Your task to perform on an android device: star an email in the gmail app Image 0: 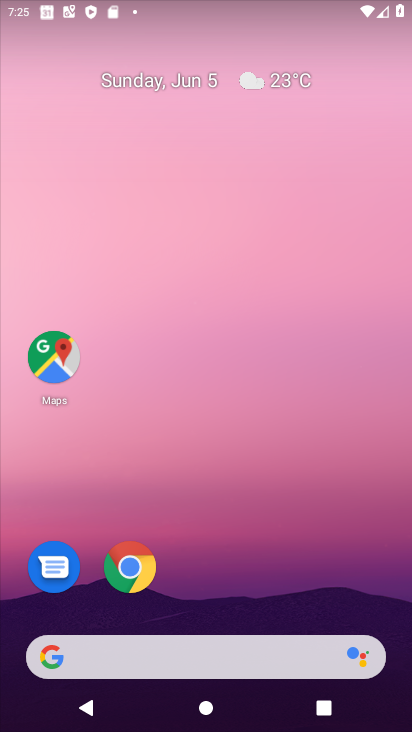
Step 0: drag from (389, 630) to (352, 383)
Your task to perform on an android device: star an email in the gmail app Image 1: 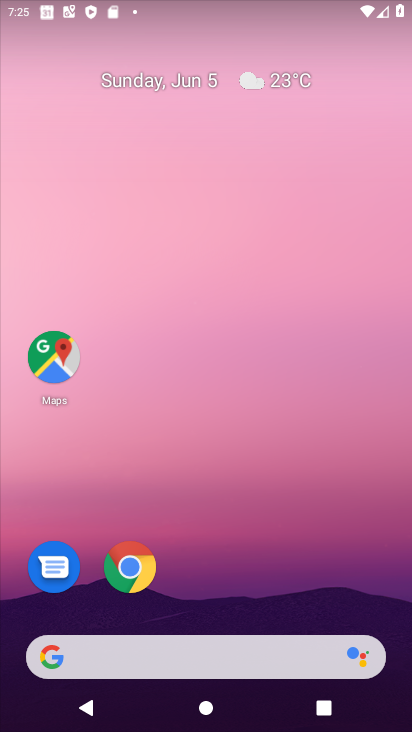
Step 1: click (394, 645)
Your task to perform on an android device: star an email in the gmail app Image 2: 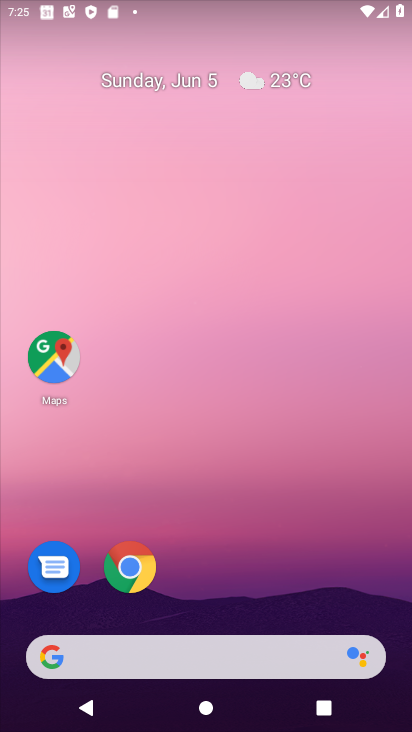
Step 2: drag from (381, 542) to (238, 54)
Your task to perform on an android device: star an email in the gmail app Image 3: 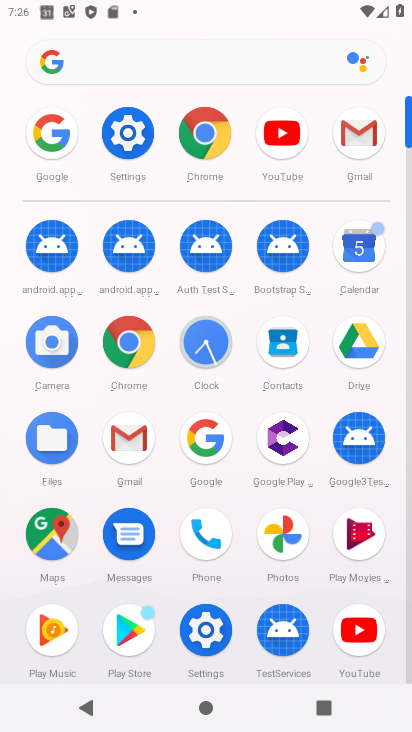
Step 3: click (134, 446)
Your task to perform on an android device: star an email in the gmail app Image 4: 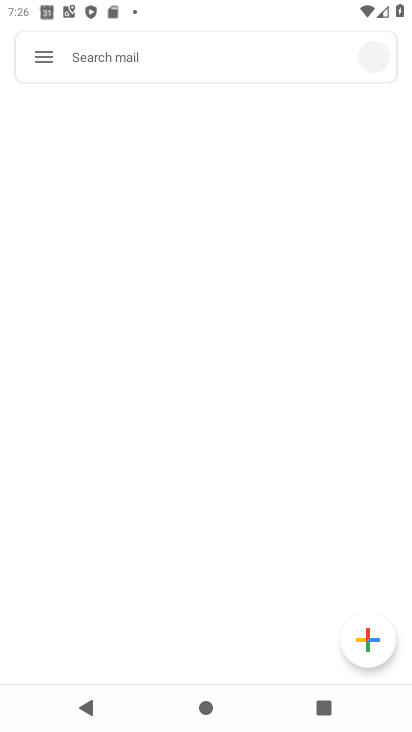
Step 4: click (33, 50)
Your task to perform on an android device: star an email in the gmail app Image 5: 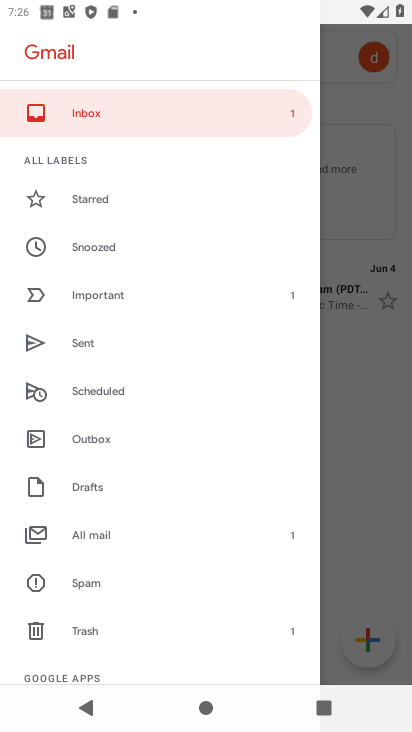
Step 5: press back button
Your task to perform on an android device: star an email in the gmail app Image 6: 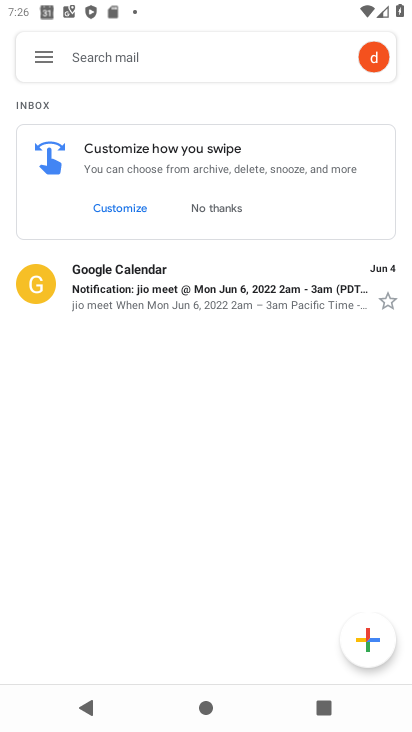
Step 6: click (383, 306)
Your task to perform on an android device: star an email in the gmail app Image 7: 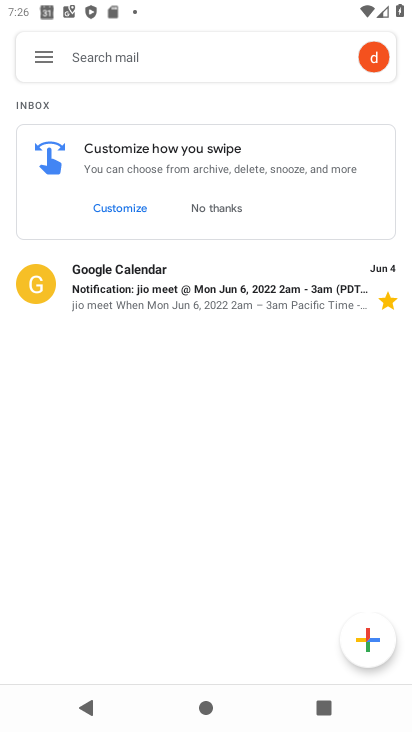
Step 7: task complete